Your task to perform on an android device: Go to location settings Image 0: 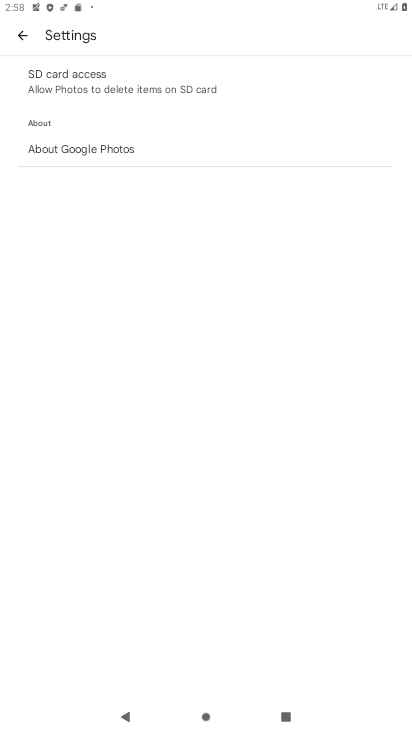
Step 0: press home button
Your task to perform on an android device: Go to location settings Image 1: 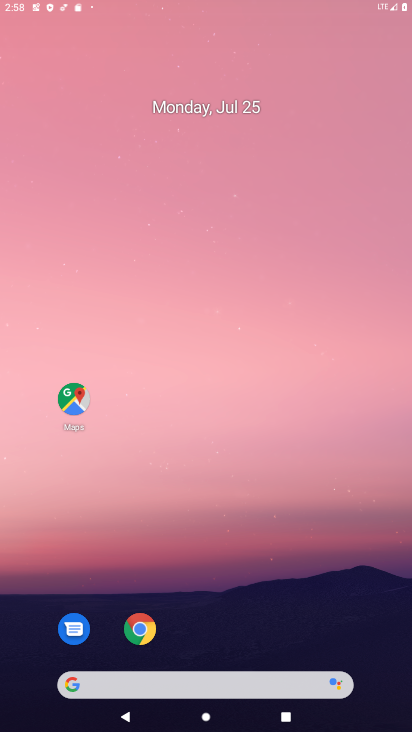
Step 1: drag from (187, 466) to (110, 23)
Your task to perform on an android device: Go to location settings Image 2: 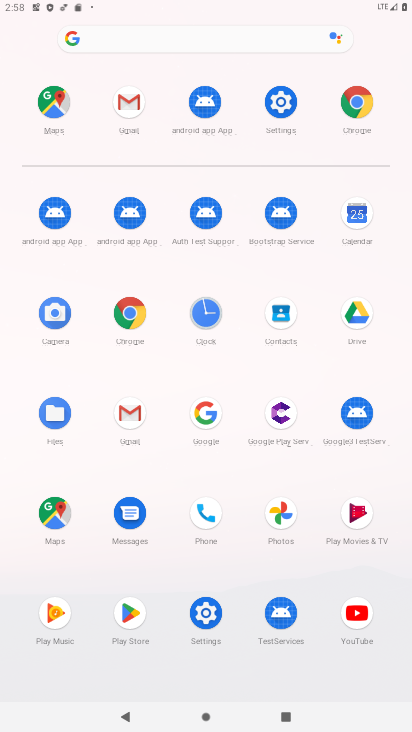
Step 2: click (286, 95)
Your task to perform on an android device: Go to location settings Image 3: 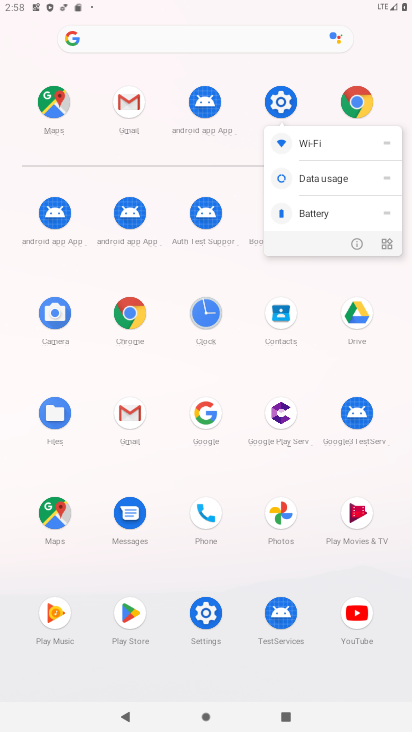
Step 3: click (356, 242)
Your task to perform on an android device: Go to location settings Image 4: 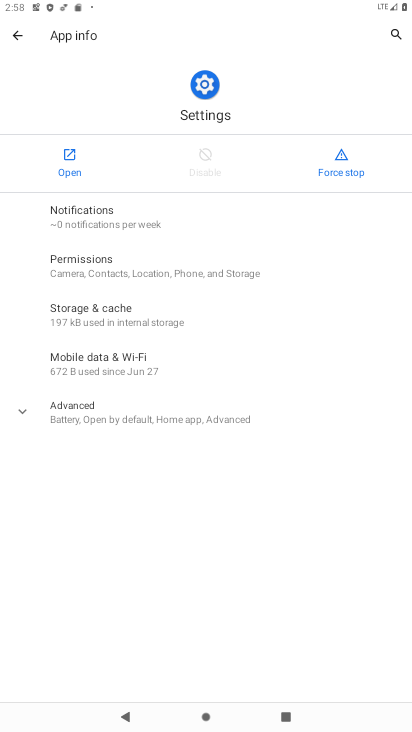
Step 4: click (74, 166)
Your task to perform on an android device: Go to location settings Image 5: 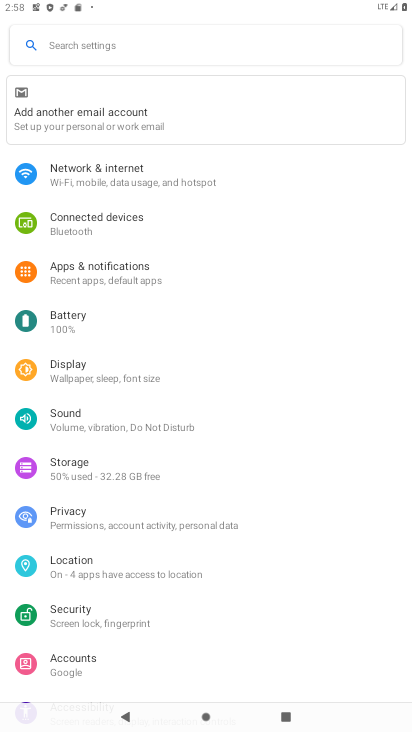
Step 5: click (91, 561)
Your task to perform on an android device: Go to location settings Image 6: 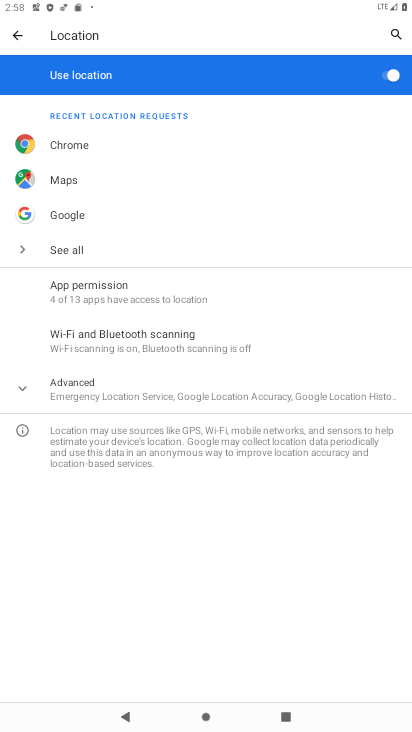
Step 6: task complete